Your task to perform on an android device: Set the phone to "Do not disturb". Image 0: 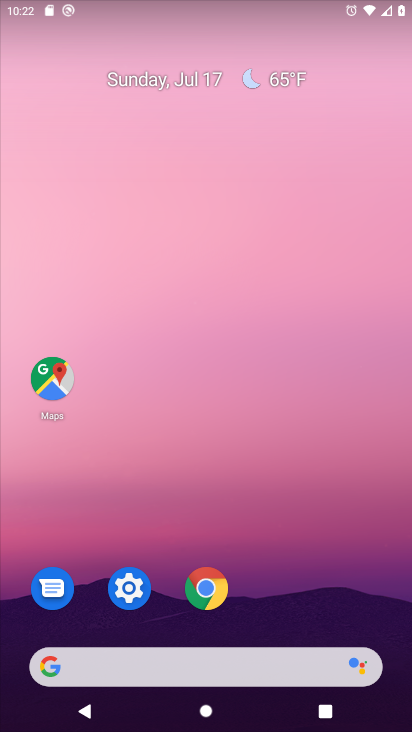
Step 0: drag from (255, 643) to (214, 14)
Your task to perform on an android device: Set the phone to "Do not disturb". Image 1: 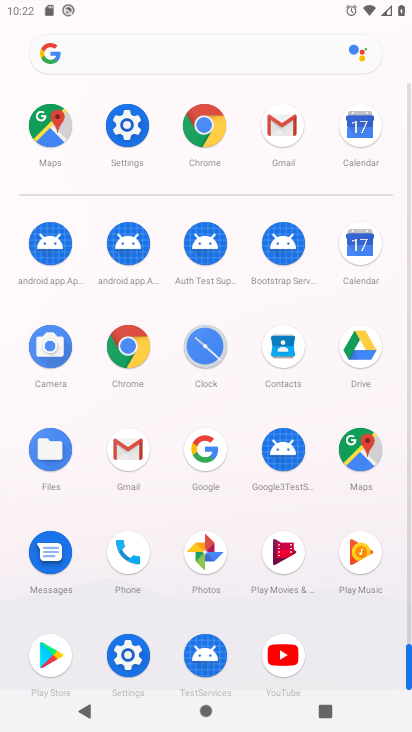
Step 1: click (121, 656)
Your task to perform on an android device: Set the phone to "Do not disturb". Image 2: 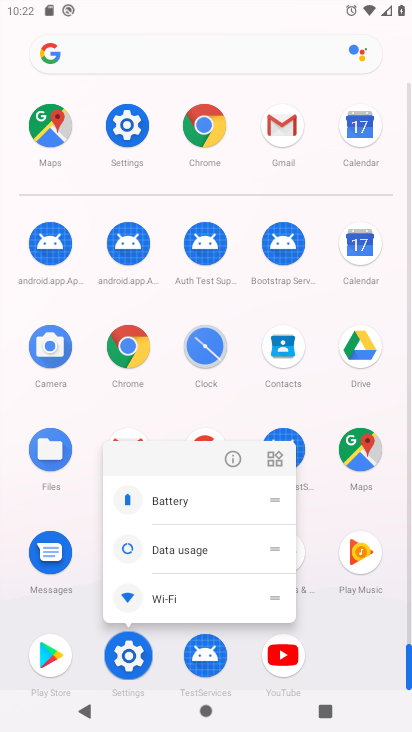
Step 2: click (121, 656)
Your task to perform on an android device: Set the phone to "Do not disturb". Image 3: 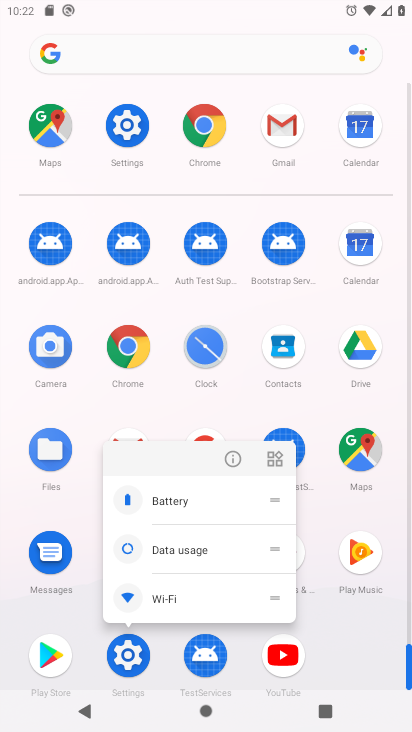
Step 3: click (122, 657)
Your task to perform on an android device: Set the phone to "Do not disturb". Image 4: 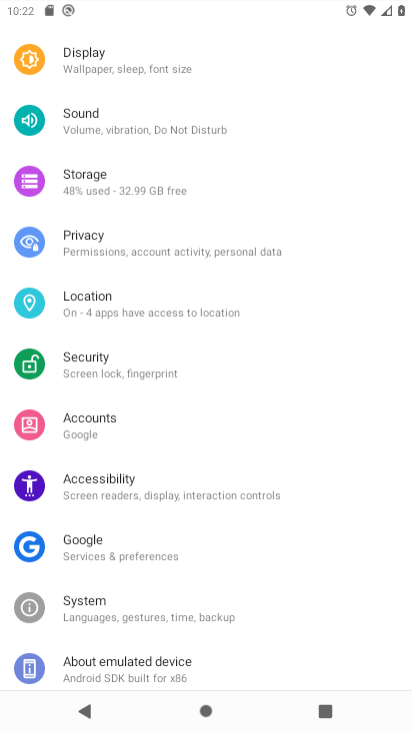
Step 4: click (122, 657)
Your task to perform on an android device: Set the phone to "Do not disturb". Image 5: 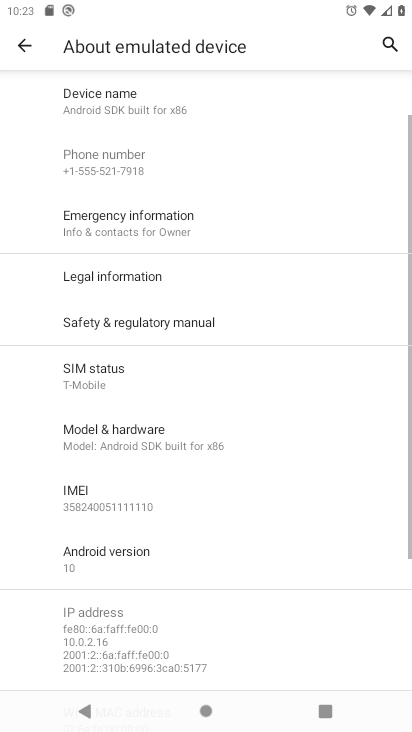
Step 5: click (27, 57)
Your task to perform on an android device: Set the phone to "Do not disturb". Image 6: 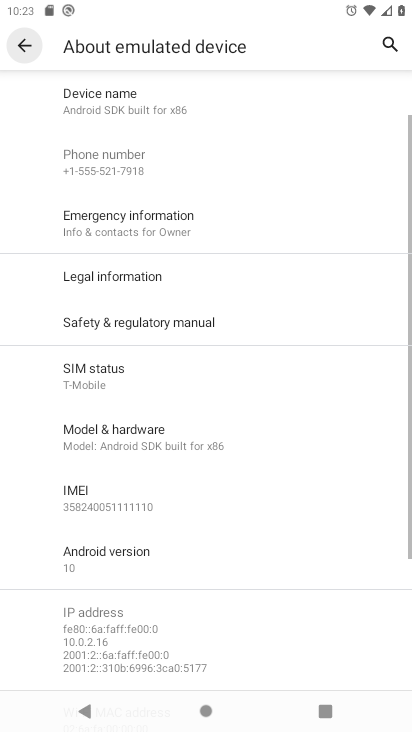
Step 6: click (24, 45)
Your task to perform on an android device: Set the phone to "Do not disturb". Image 7: 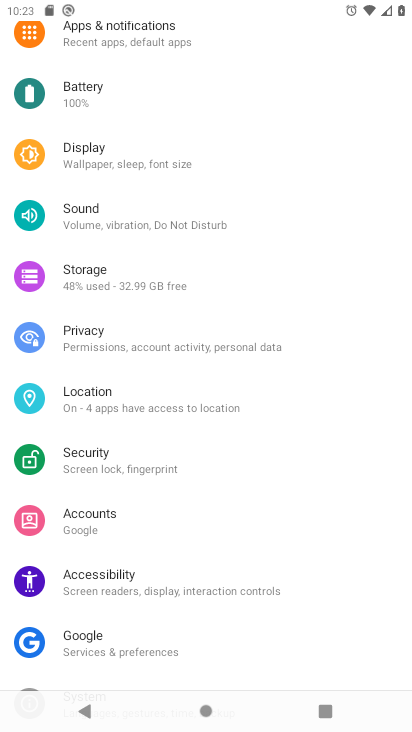
Step 7: click (93, 206)
Your task to perform on an android device: Set the phone to "Do not disturb". Image 8: 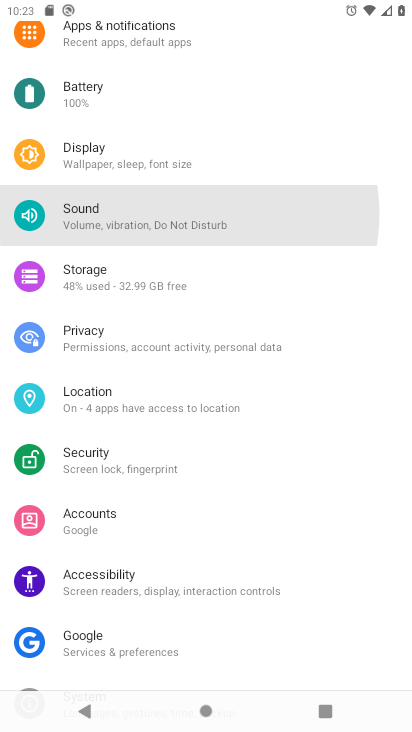
Step 8: click (93, 205)
Your task to perform on an android device: Set the phone to "Do not disturb". Image 9: 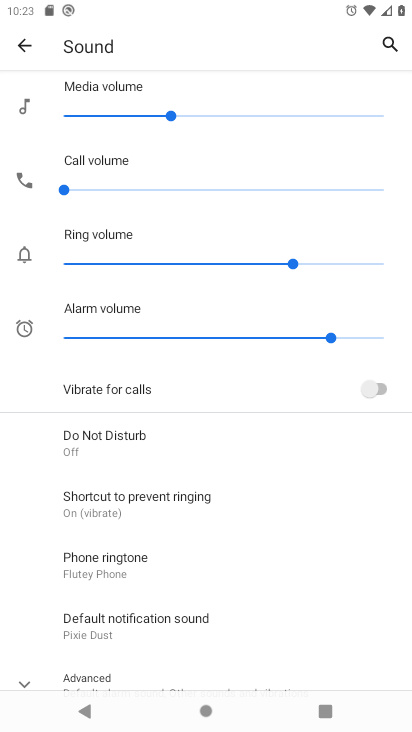
Step 9: drag from (177, 508) to (163, 257)
Your task to perform on an android device: Set the phone to "Do not disturb". Image 10: 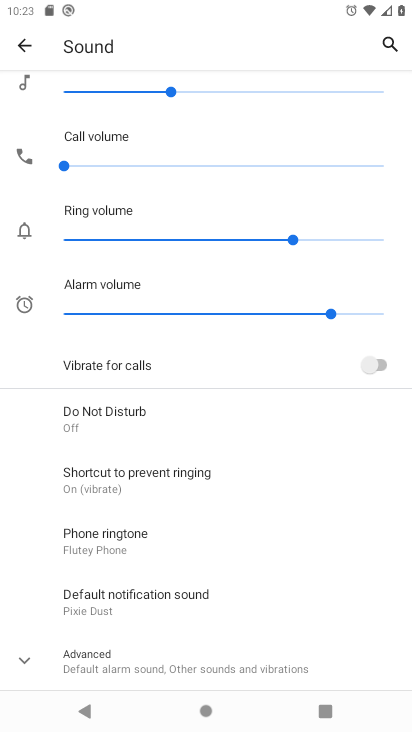
Step 10: click (109, 402)
Your task to perform on an android device: Set the phone to "Do not disturb". Image 11: 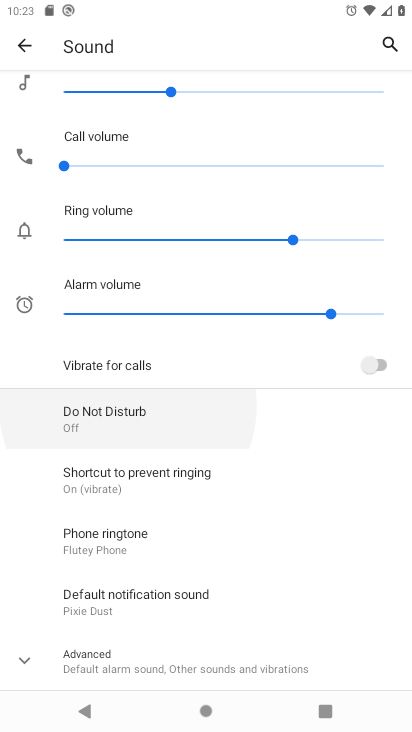
Step 11: click (109, 402)
Your task to perform on an android device: Set the phone to "Do not disturb". Image 12: 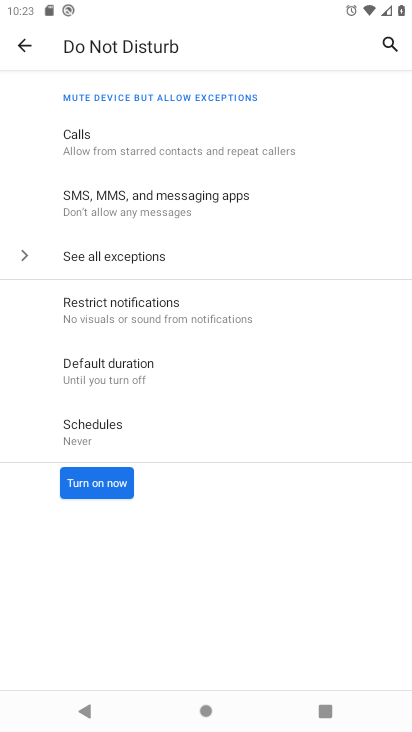
Step 12: click (97, 488)
Your task to perform on an android device: Set the phone to "Do not disturb". Image 13: 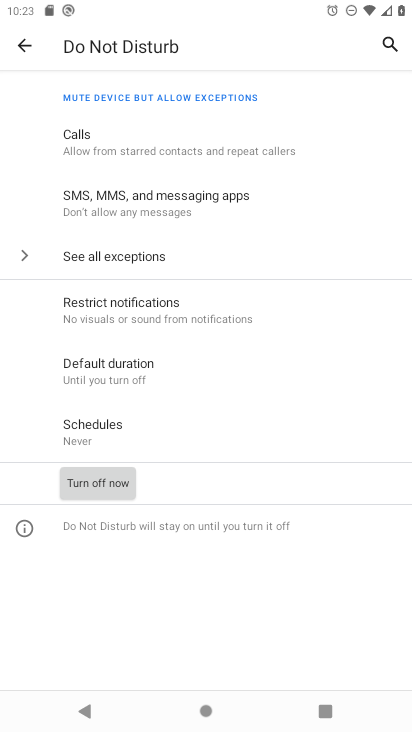
Step 13: task complete